Your task to perform on an android device: uninstall "Facebook Lite" Image 0: 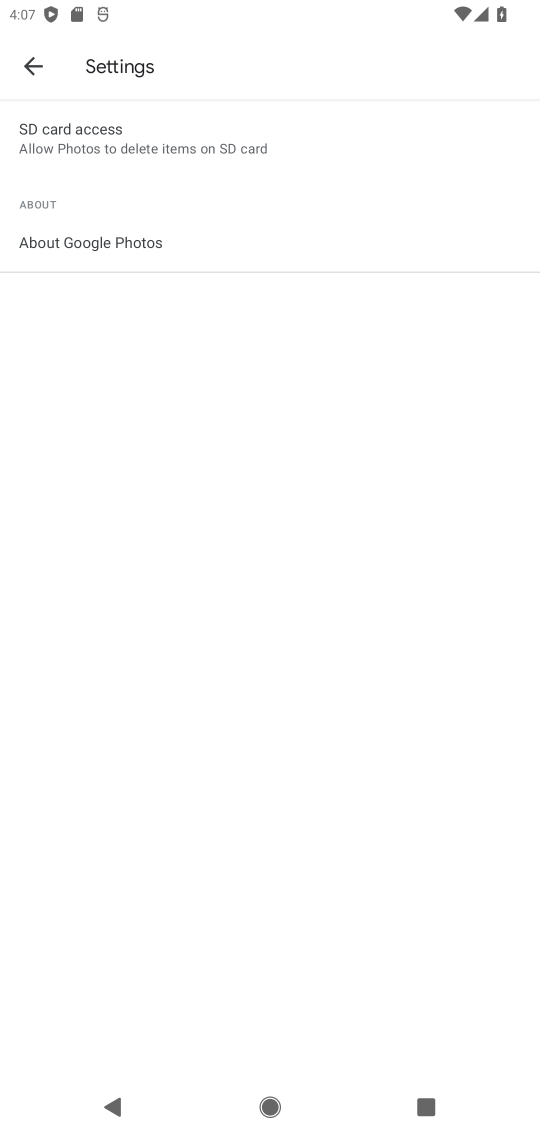
Step 0: press home button
Your task to perform on an android device: uninstall "Facebook Lite" Image 1: 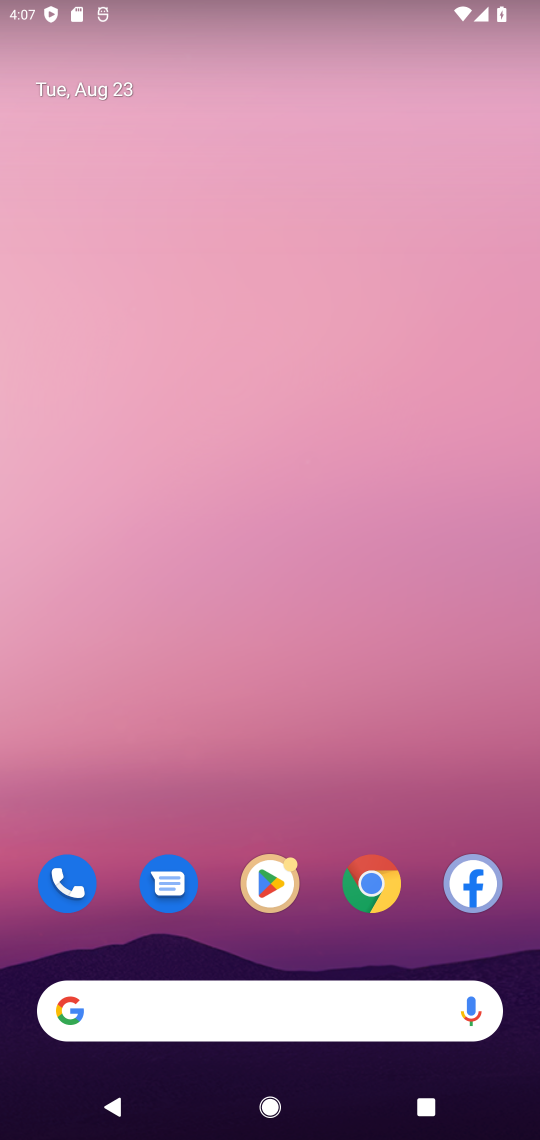
Step 1: drag from (219, 925) to (255, 179)
Your task to perform on an android device: uninstall "Facebook Lite" Image 2: 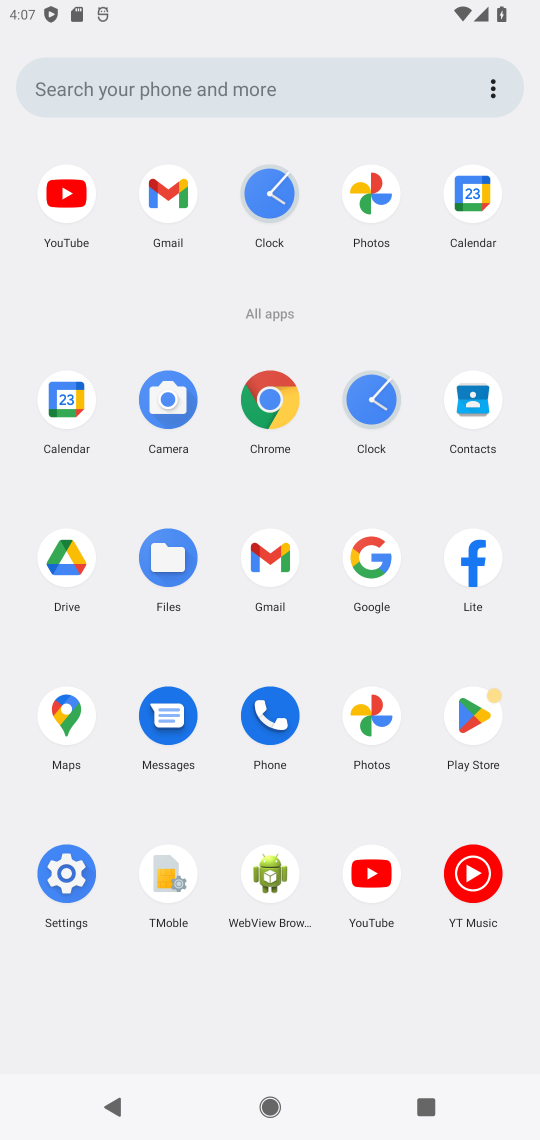
Step 2: click (461, 721)
Your task to perform on an android device: uninstall "Facebook Lite" Image 3: 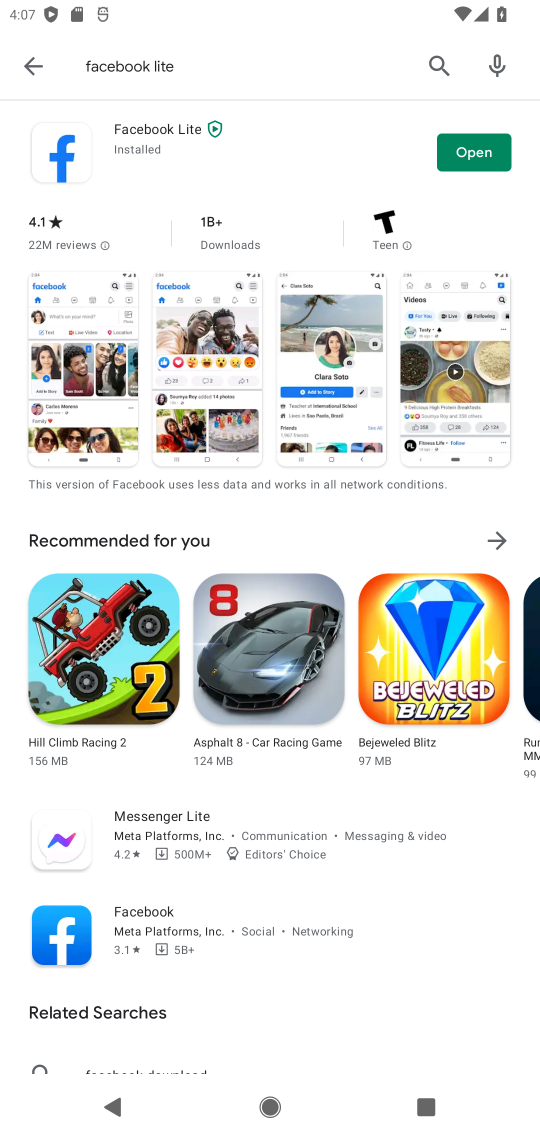
Step 3: click (440, 65)
Your task to perform on an android device: uninstall "Facebook Lite" Image 4: 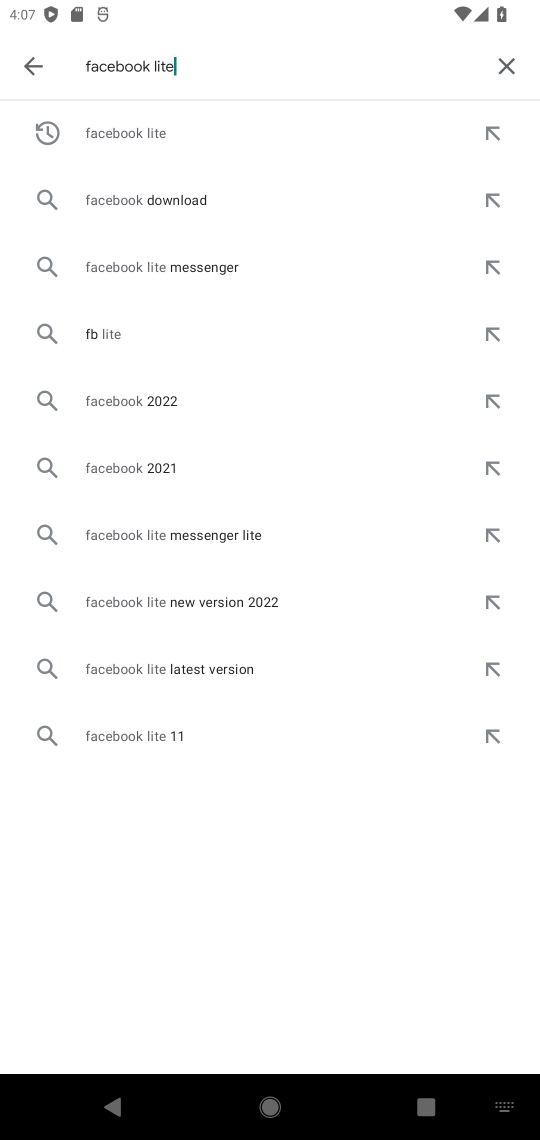
Step 4: click (503, 60)
Your task to perform on an android device: uninstall "Facebook Lite" Image 5: 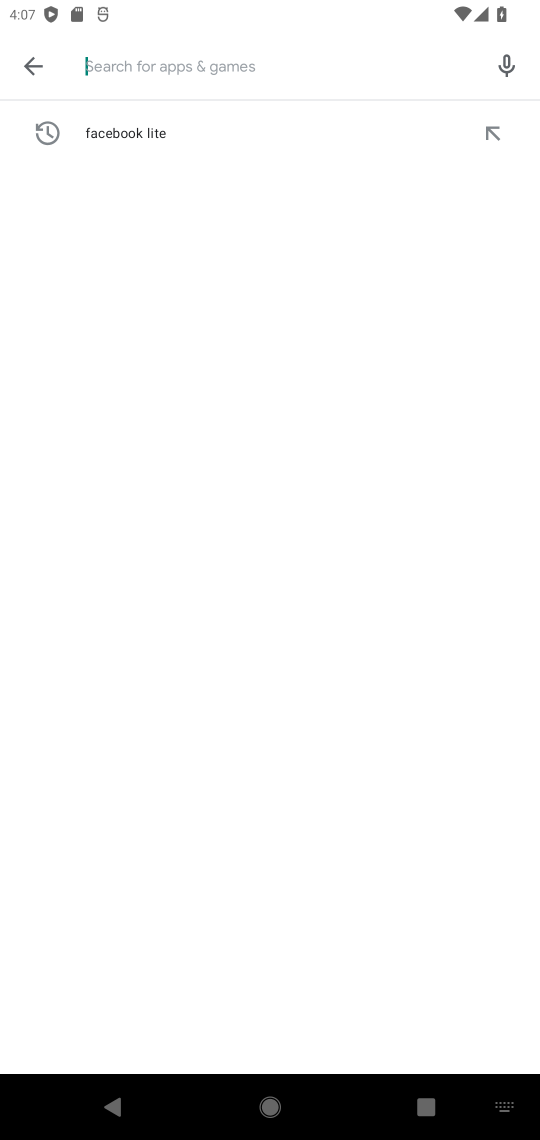
Step 5: type "Facebook Lite"
Your task to perform on an android device: uninstall "Facebook Lite" Image 6: 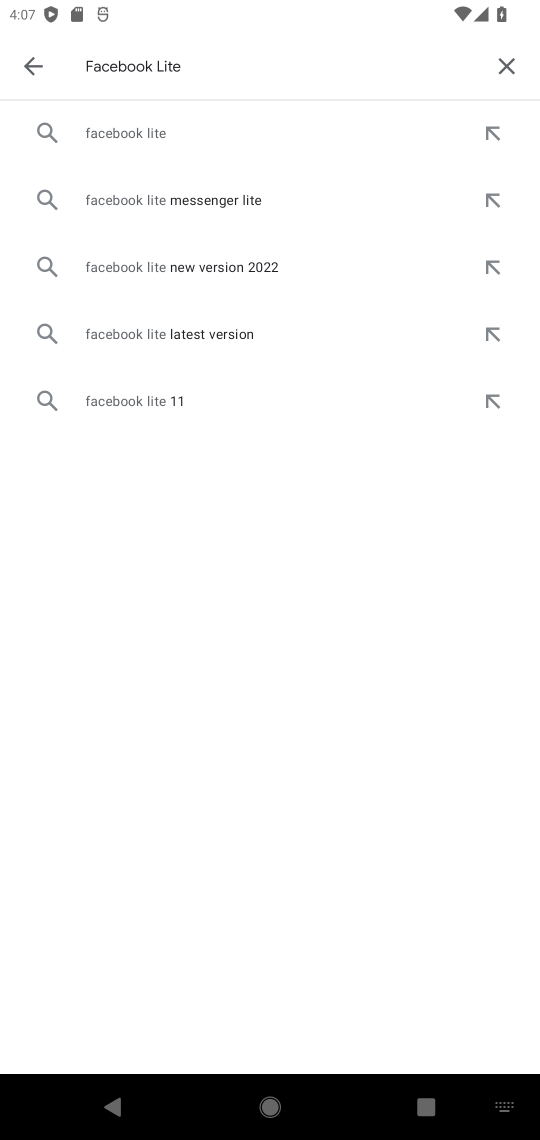
Step 6: click (95, 138)
Your task to perform on an android device: uninstall "Facebook Lite" Image 7: 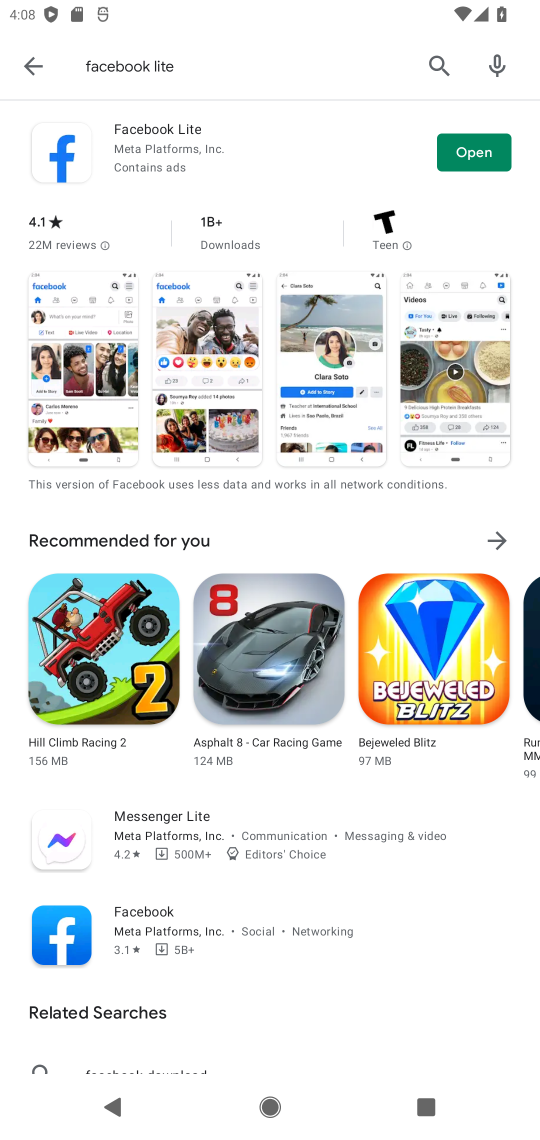
Step 7: click (255, 153)
Your task to perform on an android device: uninstall "Facebook Lite" Image 8: 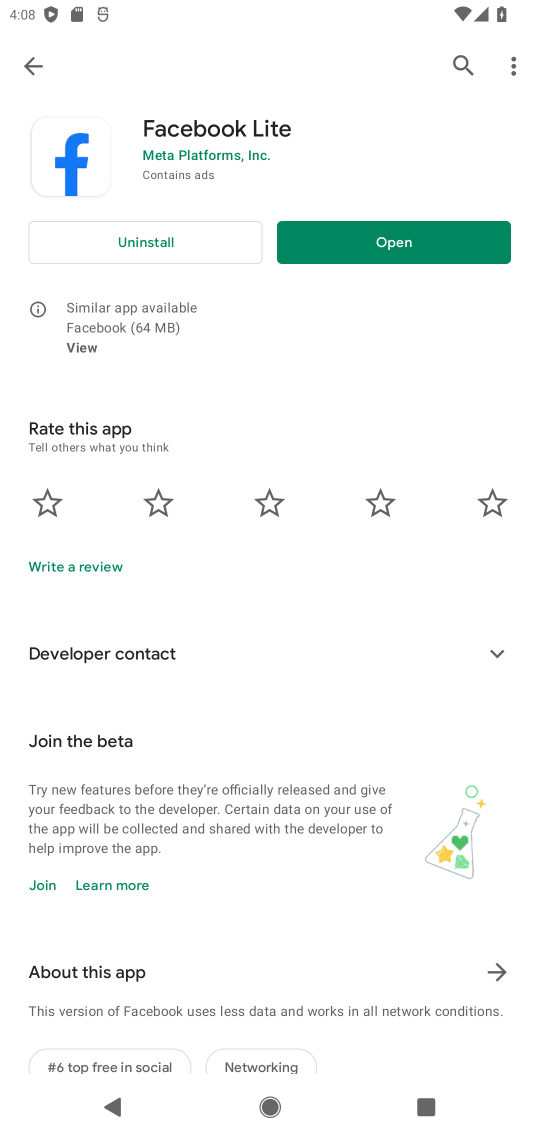
Step 8: click (180, 238)
Your task to perform on an android device: uninstall "Facebook Lite" Image 9: 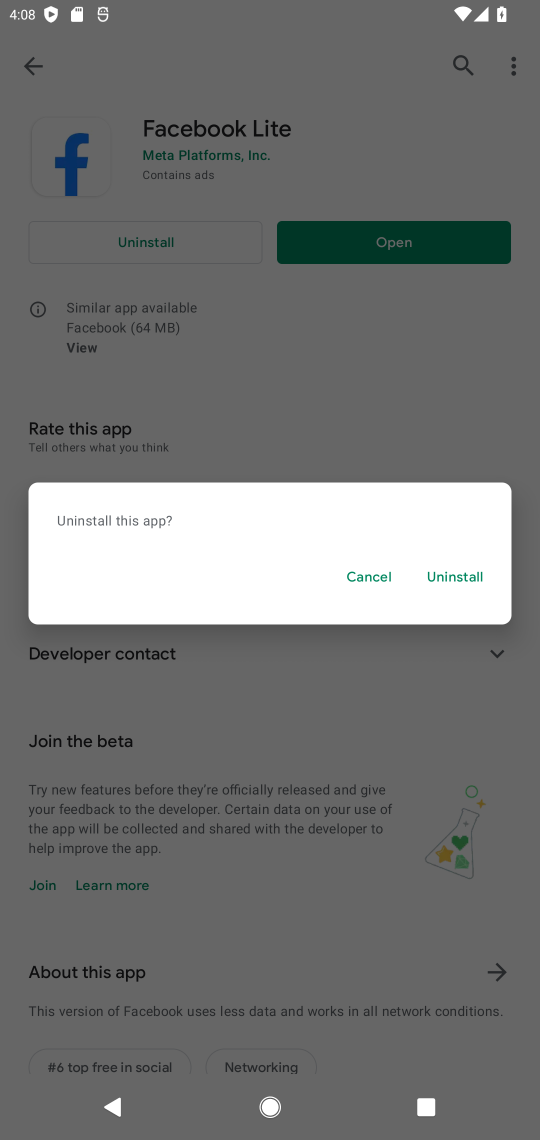
Step 9: click (456, 580)
Your task to perform on an android device: uninstall "Facebook Lite" Image 10: 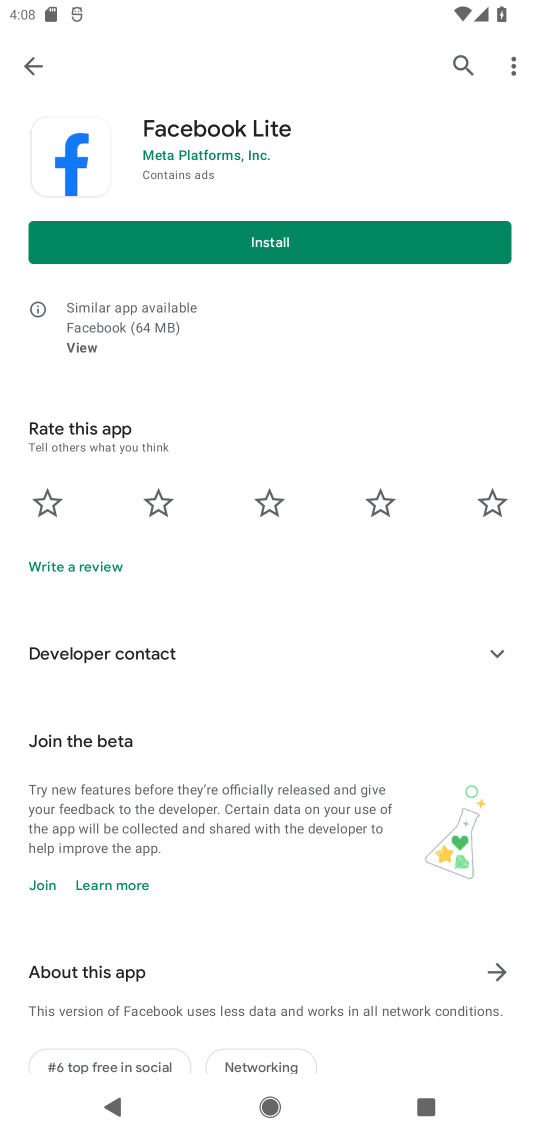
Step 10: task complete